Your task to perform on an android device: Go to Android settings Image 0: 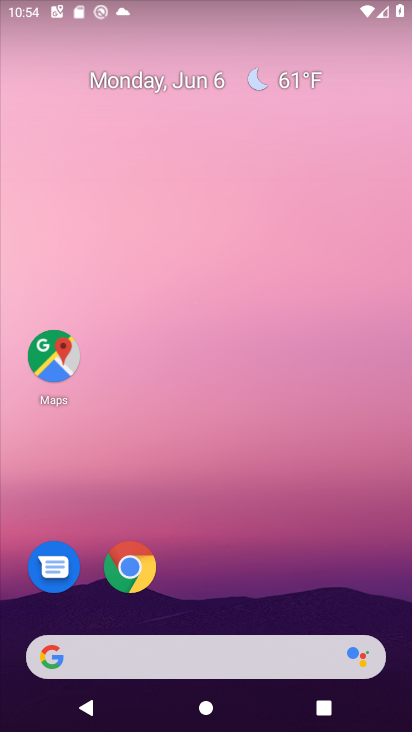
Step 0: drag from (234, 671) to (229, 12)
Your task to perform on an android device: Go to Android settings Image 1: 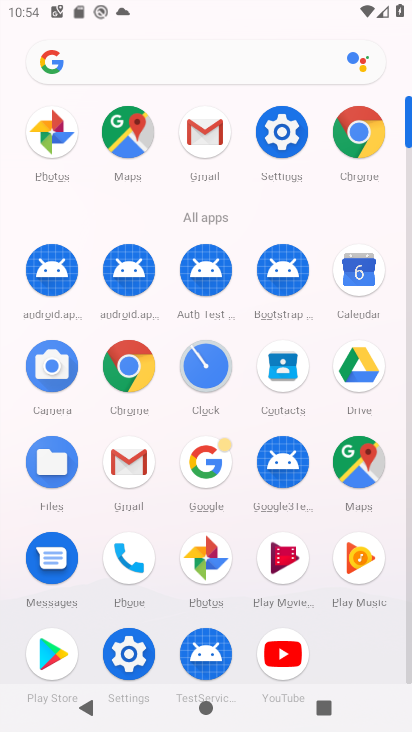
Step 1: click (273, 139)
Your task to perform on an android device: Go to Android settings Image 2: 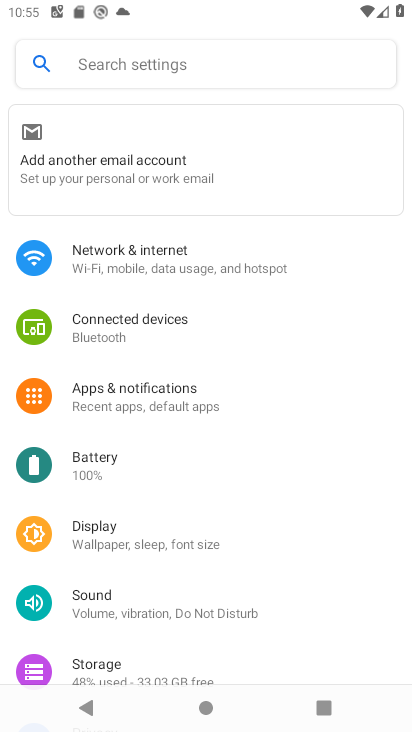
Step 2: task complete